Your task to perform on an android device: turn off location history Image 0: 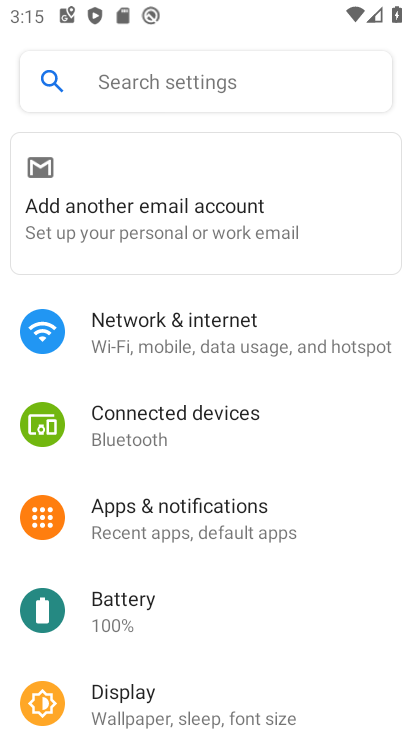
Step 0: drag from (215, 640) to (253, 95)
Your task to perform on an android device: turn off location history Image 1: 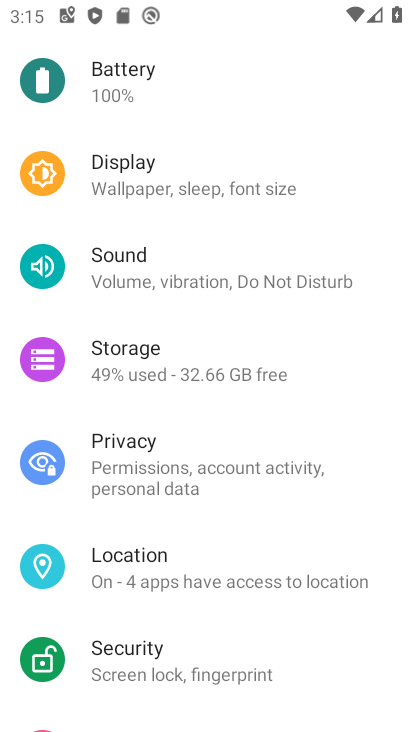
Step 1: click (140, 567)
Your task to perform on an android device: turn off location history Image 2: 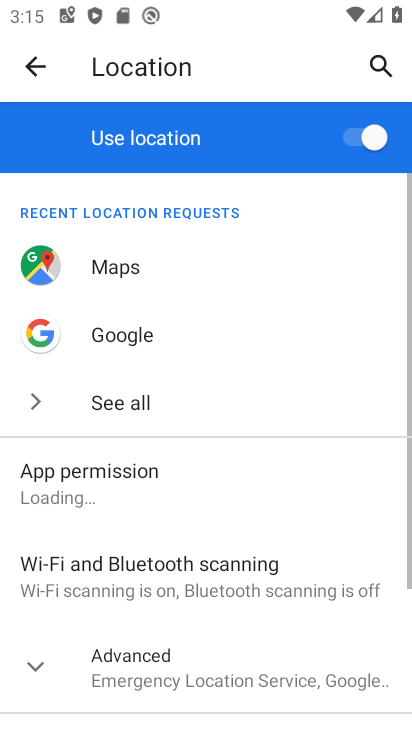
Step 2: drag from (248, 530) to (238, 103)
Your task to perform on an android device: turn off location history Image 3: 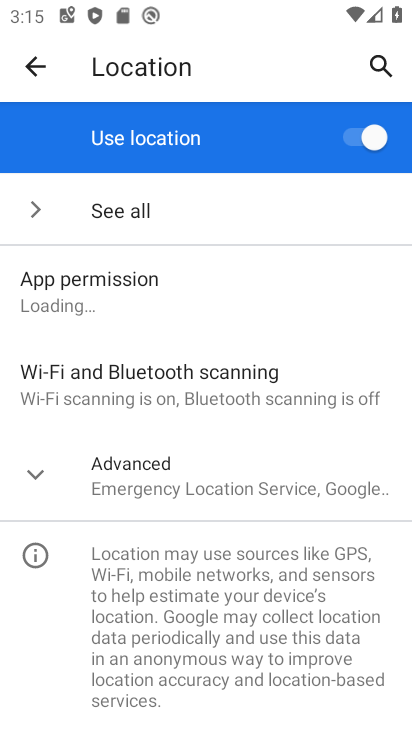
Step 3: click (34, 468)
Your task to perform on an android device: turn off location history Image 4: 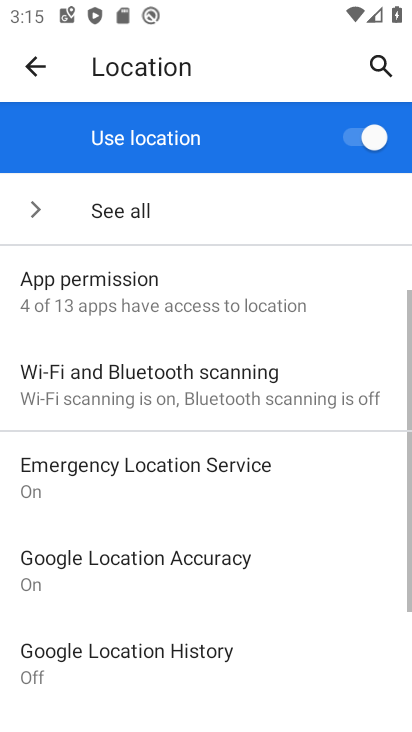
Step 4: drag from (282, 561) to (306, 273)
Your task to perform on an android device: turn off location history Image 5: 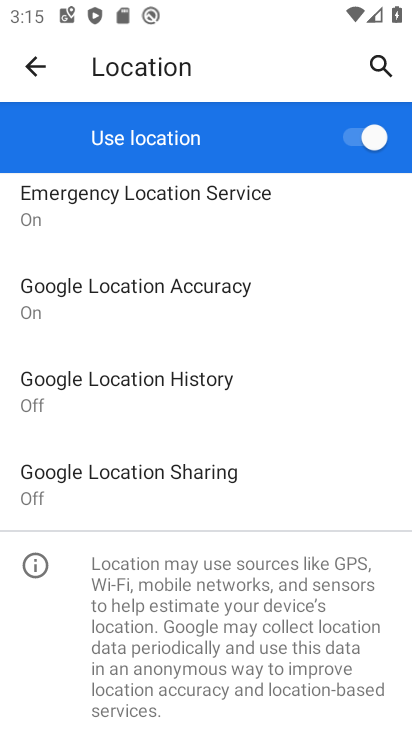
Step 5: click (142, 382)
Your task to perform on an android device: turn off location history Image 6: 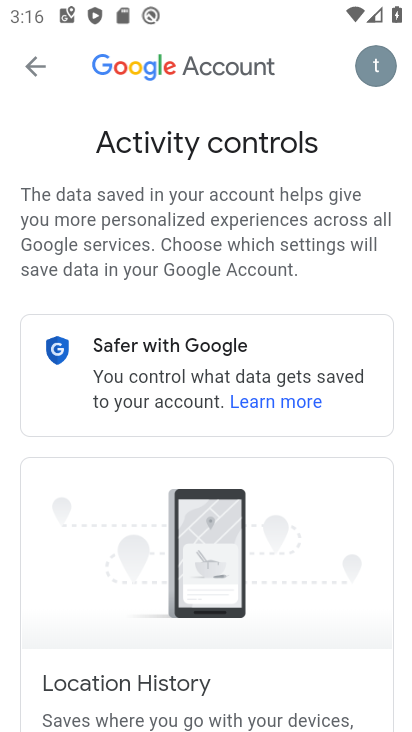
Step 6: task complete